Your task to perform on an android device: turn off translation in the chrome app Image 0: 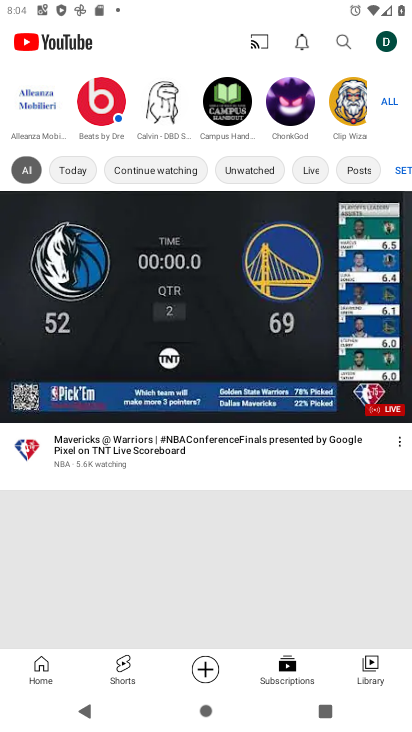
Step 0: press home button
Your task to perform on an android device: turn off translation in the chrome app Image 1: 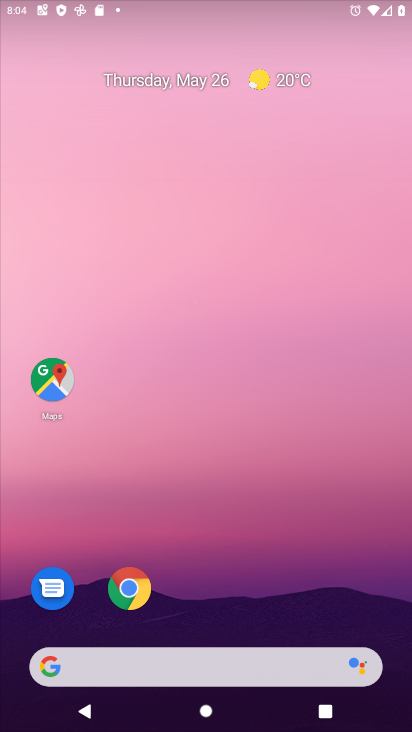
Step 1: drag from (367, 622) to (290, 16)
Your task to perform on an android device: turn off translation in the chrome app Image 2: 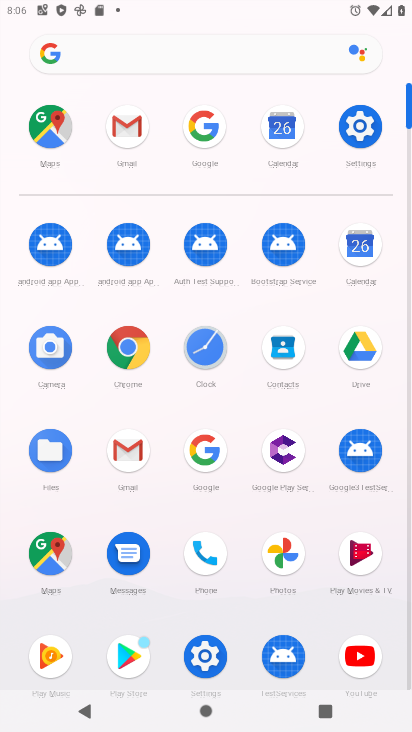
Step 2: click (126, 357)
Your task to perform on an android device: turn off translation in the chrome app Image 3: 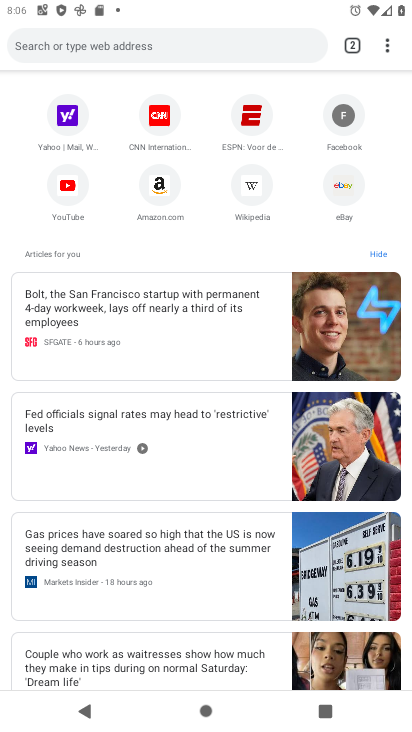
Step 3: click (394, 42)
Your task to perform on an android device: turn off translation in the chrome app Image 4: 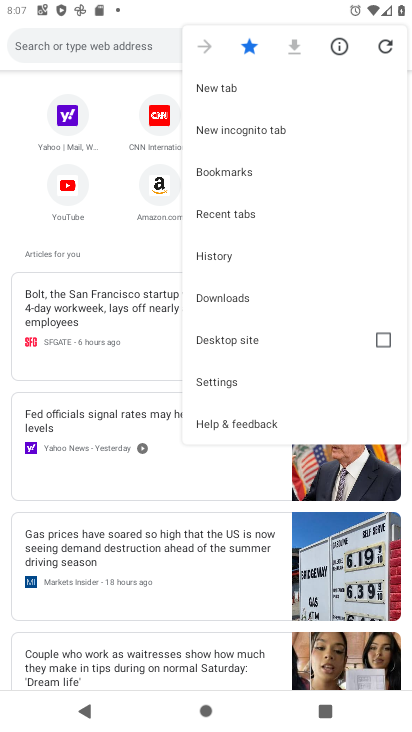
Step 4: click (252, 385)
Your task to perform on an android device: turn off translation in the chrome app Image 5: 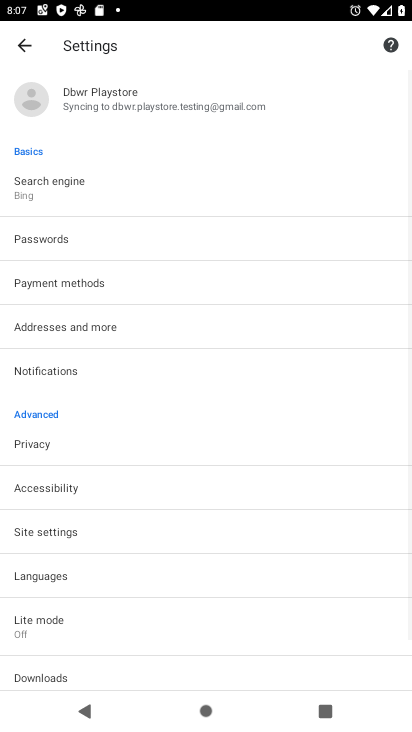
Step 5: click (83, 580)
Your task to perform on an android device: turn off translation in the chrome app Image 6: 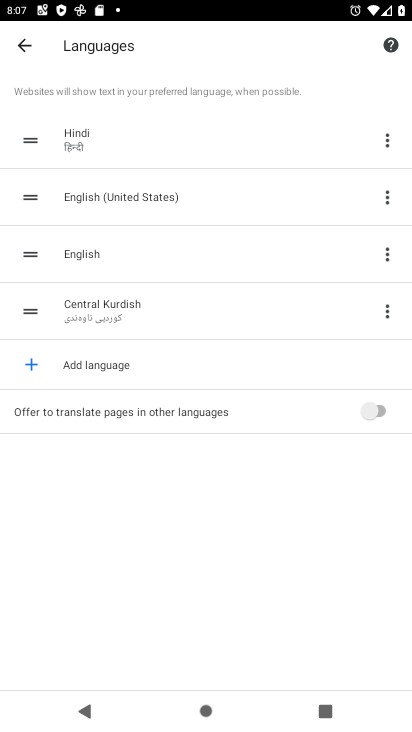
Step 6: task complete